Your task to perform on an android device: Open ESPN.com Image 0: 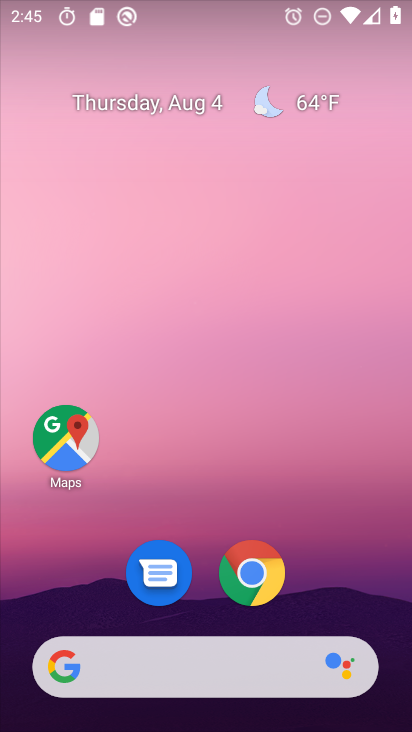
Step 0: drag from (341, 557) to (326, 91)
Your task to perform on an android device: Open ESPN.com Image 1: 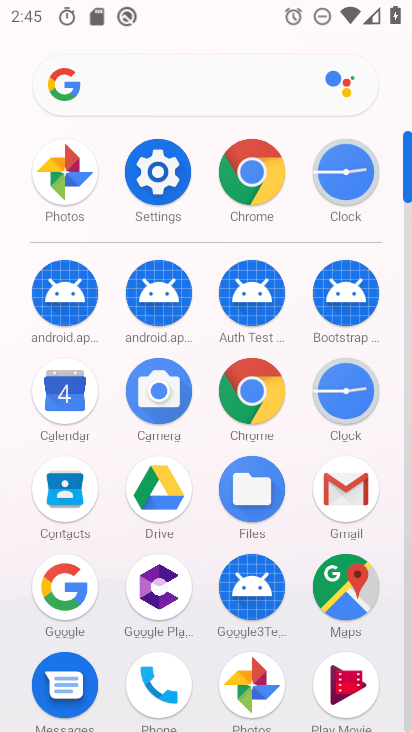
Step 1: click (247, 171)
Your task to perform on an android device: Open ESPN.com Image 2: 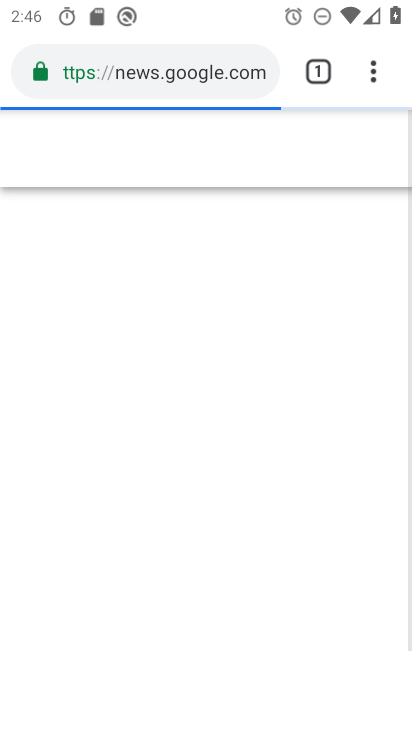
Step 2: click (228, 66)
Your task to perform on an android device: Open ESPN.com Image 3: 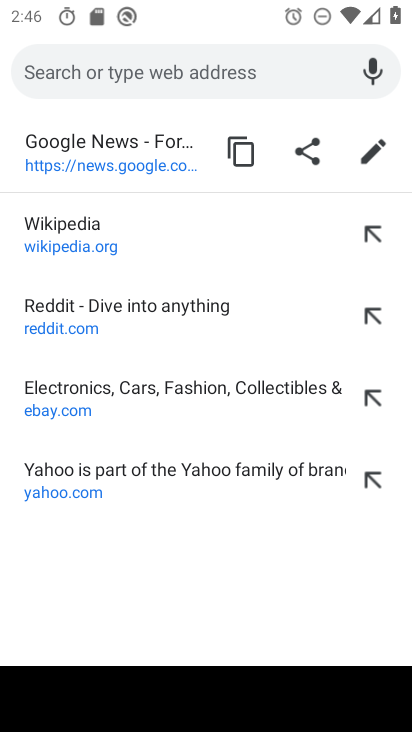
Step 3: type "espn.com"
Your task to perform on an android device: Open ESPN.com Image 4: 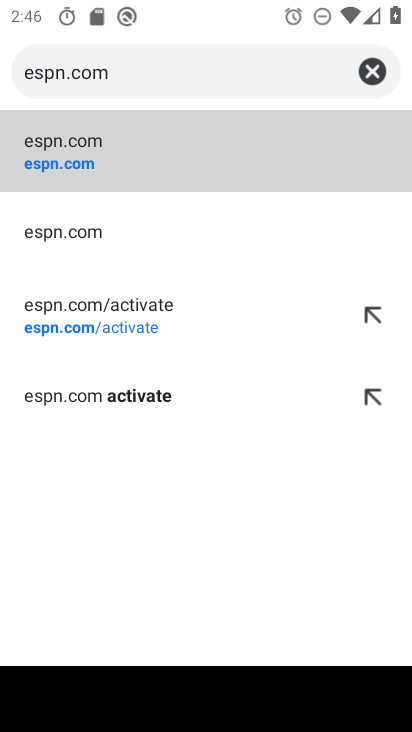
Step 4: click (78, 142)
Your task to perform on an android device: Open ESPN.com Image 5: 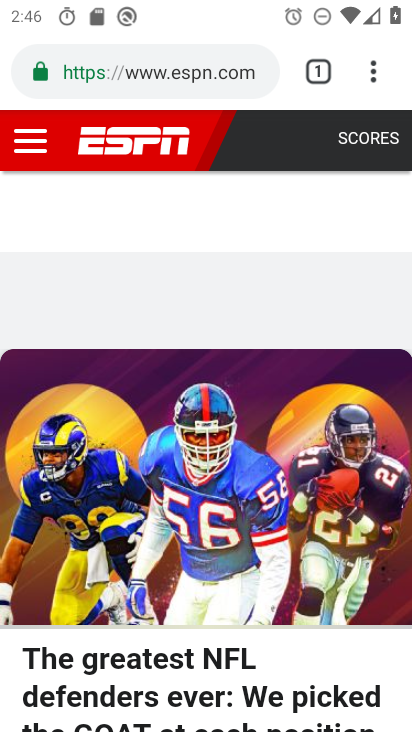
Step 5: task complete